Your task to perform on an android device: set default search engine in the chrome app Image 0: 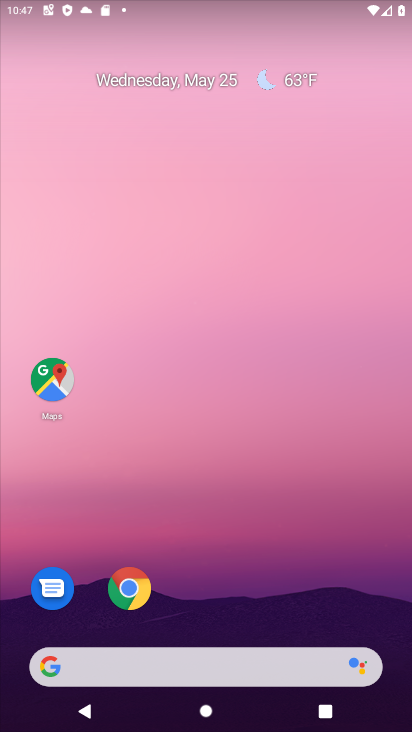
Step 0: click (130, 590)
Your task to perform on an android device: set default search engine in the chrome app Image 1: 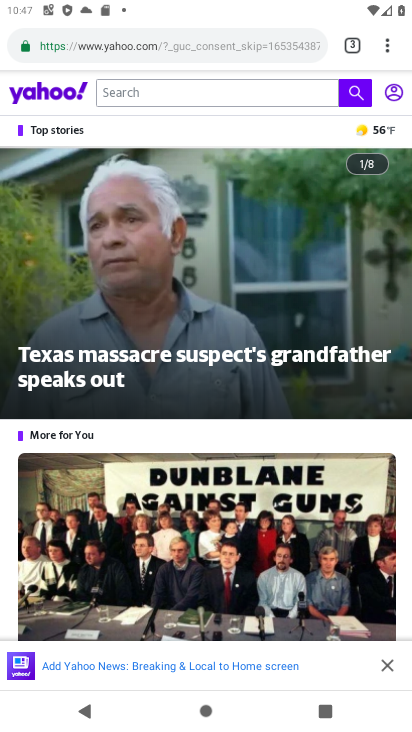
Step 1: click (386, 51)
Your task to perform on an android device: set default search engine in the chrome app Image 2: 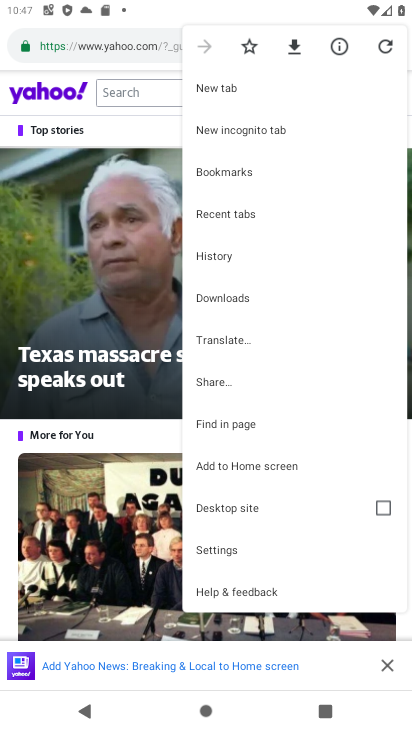
Step 2: click (220, 551)
Your task to perform on an android device: set default search engine in the chrome app Image 3: 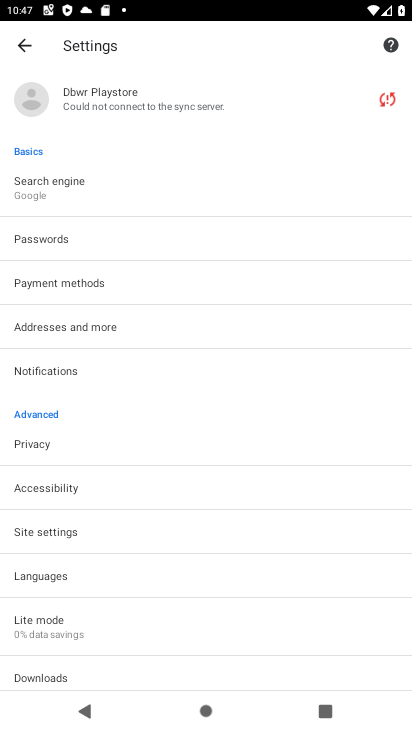
Step 3: click (116, 183)
Your task to perform on an android device: set default search engine in the chrome app Image 4: 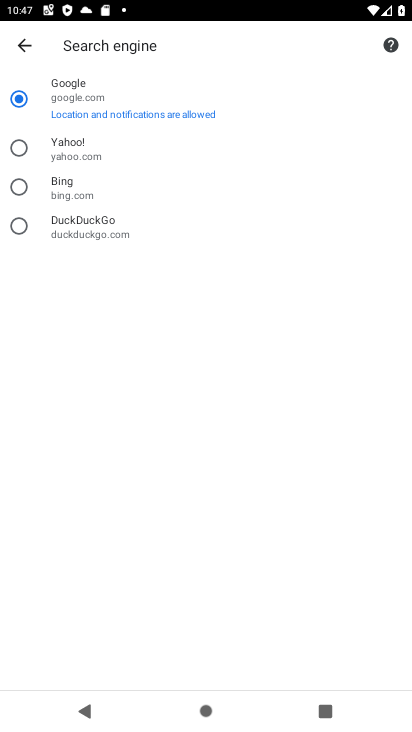
Step 4: click (77, 144)
Your task to perform on an android device: set default search engine in the chrome app Image 5: 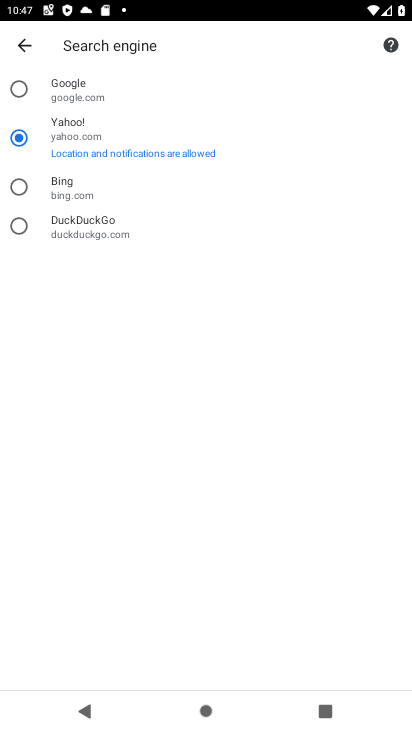
Step 5: task complete